Your task to perform on an android device: Search for pizza restaurants on Maps Image 0: 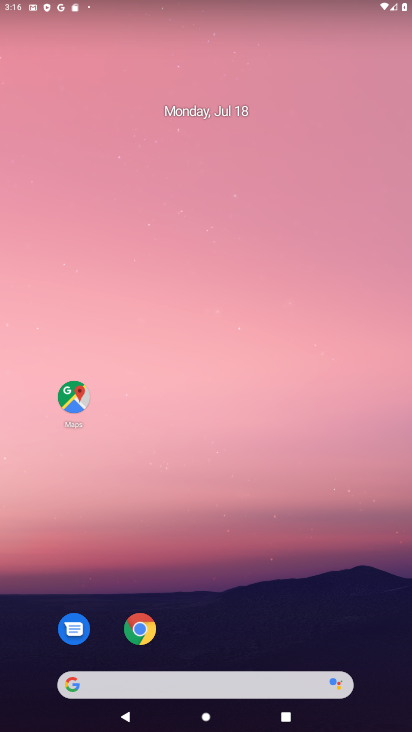
Step 0: drag from (209, 620) to (173, 239)
Your task to perform on an android device: Search for pizza restaurants on Maps Image 1: 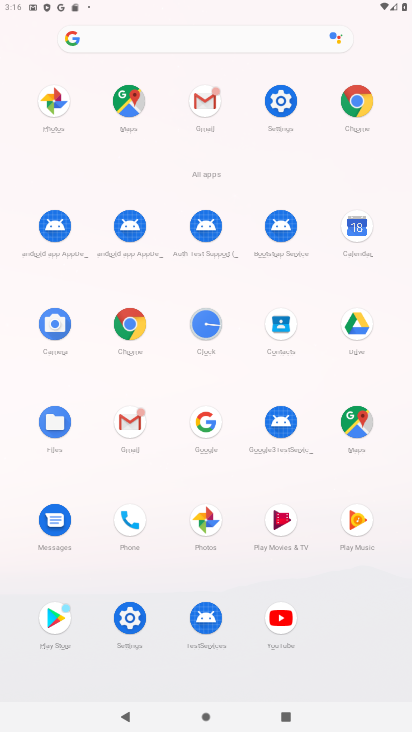
Step 1: click (345, 425)
Your task to perform on an android device: Search for pizza restaurants on Maps Image 2: 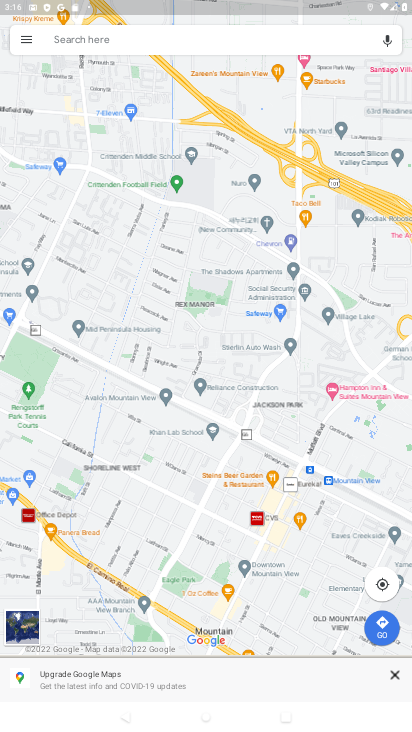
Step 2: click (81, 39)
Your task to perform on an android device: Search for pizza restaurants on Maps Image 3: 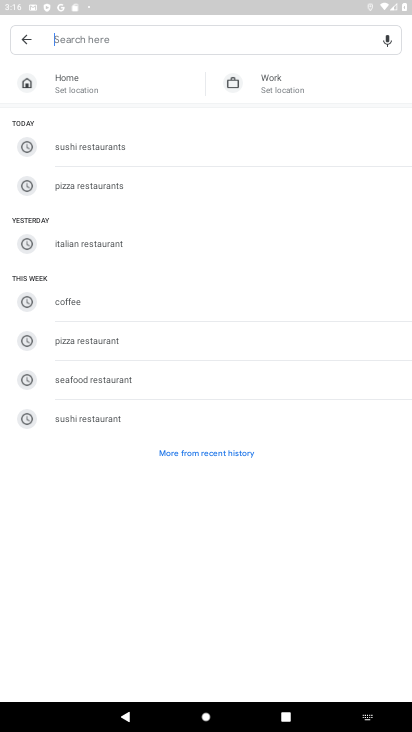
Step 3: click (95, 339)
Your task to perform on an android device: Search for pizza restaurants on Maps Image 4: 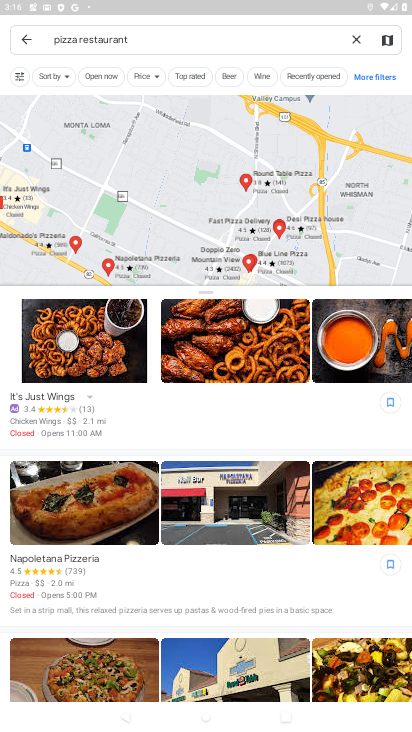
Step 4: task complete